Your task to perform on an android device: Go to Maps Image 0: 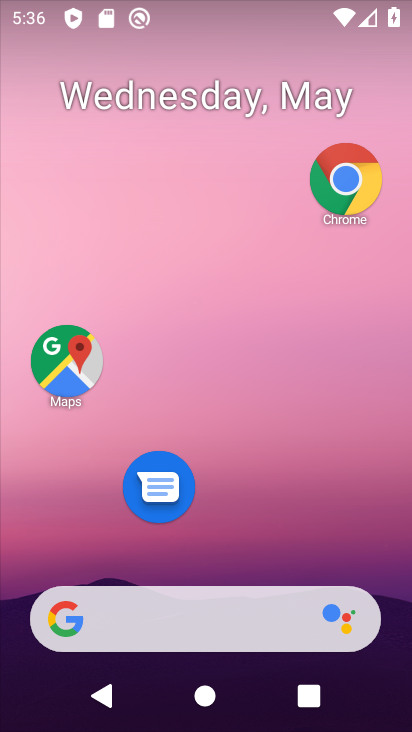
Step 0: click (63, 378)
Your task to perform on an android device: Go to Maps Image 1: 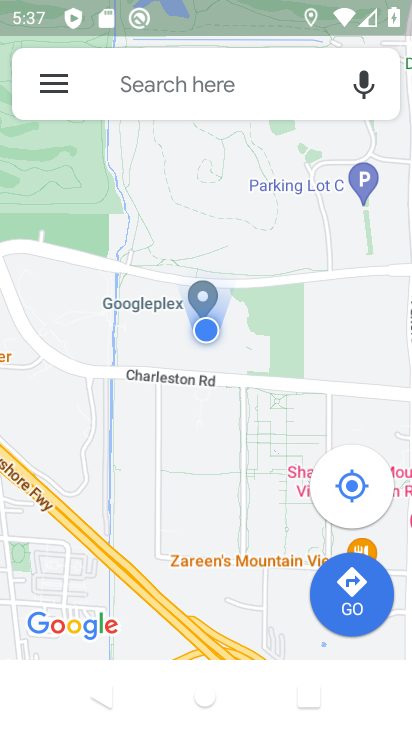
Step 1: task complete